Your task to perform on an android device: Go to eBay Image 0: 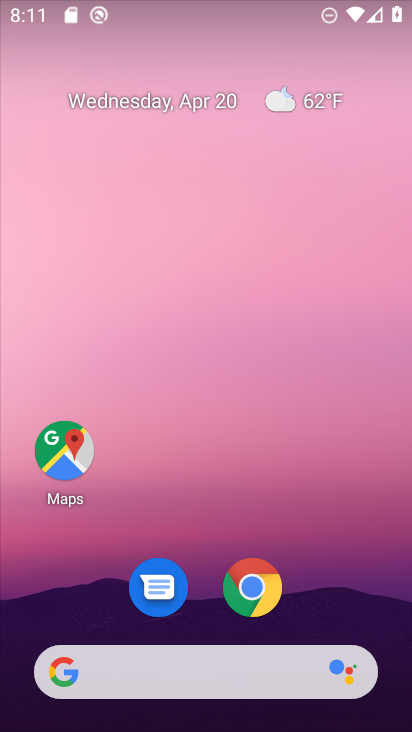
Step 0: click (261, 591)
Your task to perform on an android device: Go to eBay Image 1: 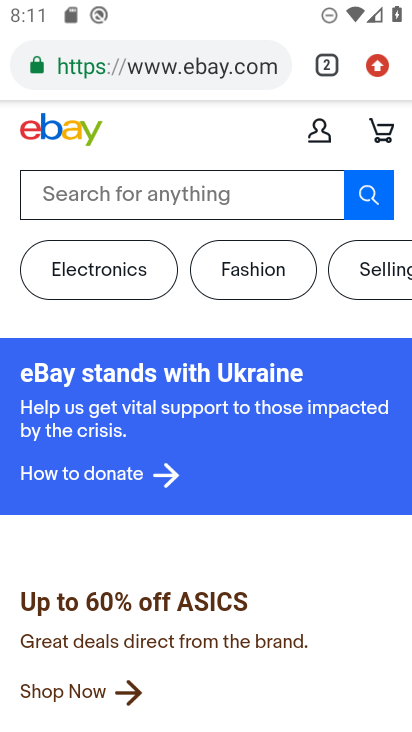
Step 1: task complete